Your task to perform on an android device: star an email in the gmail app Image 0: 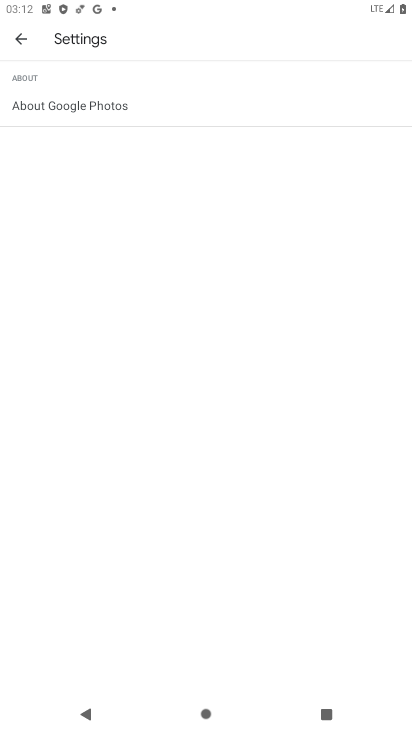
Step 0: press home button
Your task to perform on an android device: star an email in the gmail app Image 1: 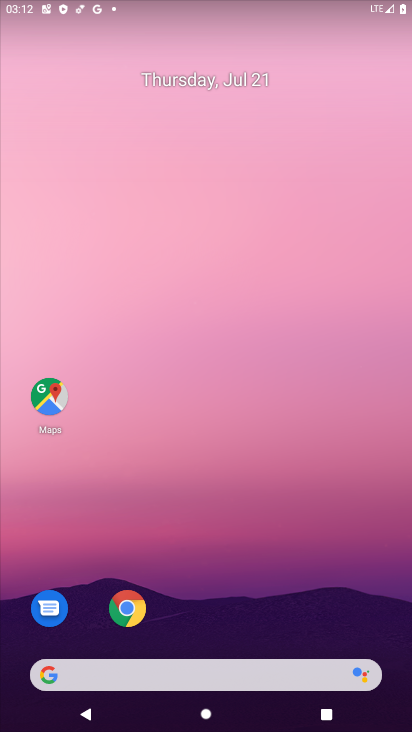
Step 1: drag from (194, 663) to (175, 57)
Your task to perform on an android device: star an email in the gmail app Image 2: 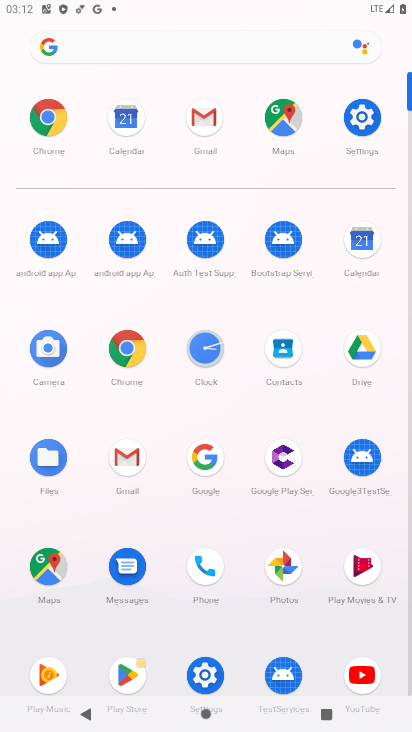
Step 2: click (127, 445)
Your task to perform on an android device: star an email in the gmail app Image 3: 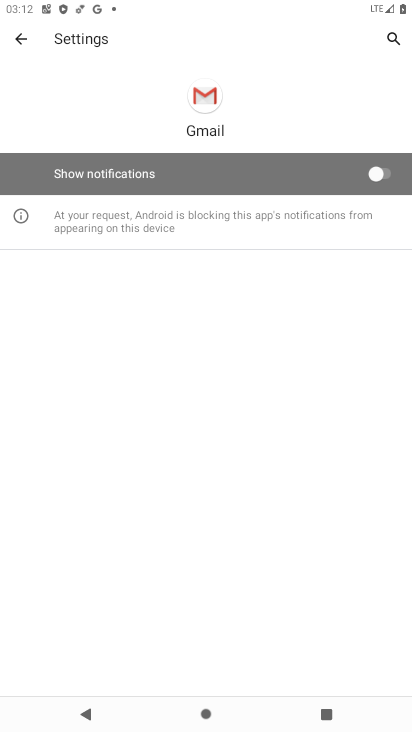
Step 3: click (17, 31)
Your task to perform on an android device: star an email in the gmail app Image 4: 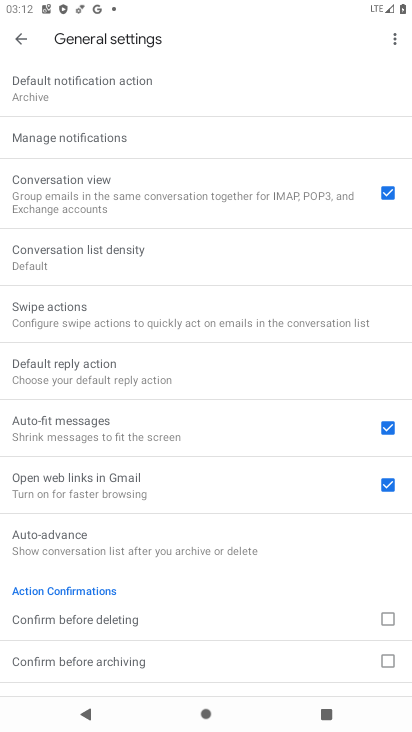
Step 4: click (26, 34)
Your task to perform on an android device: star an email in the gmail app Image 5: 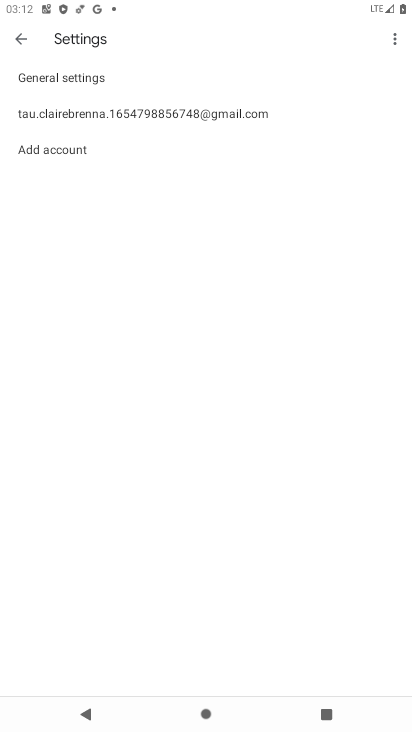
Step 5: click (13, 34)
Your task to perform on an android device: star an email in the gmail app Image 6: 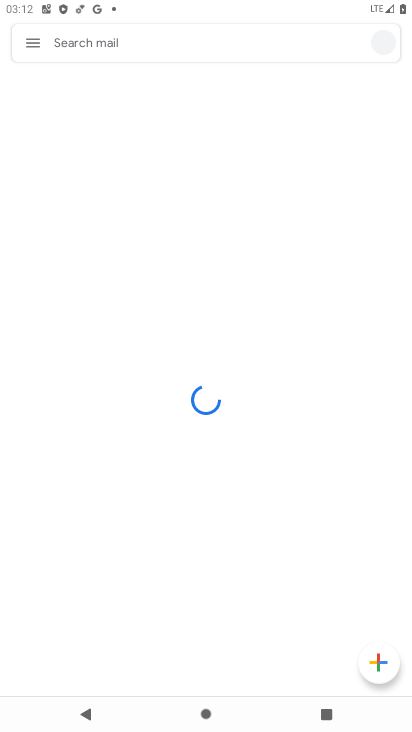
Step 6: task complete